Your task to perform on an android device: Do I have any events today? Image 0: 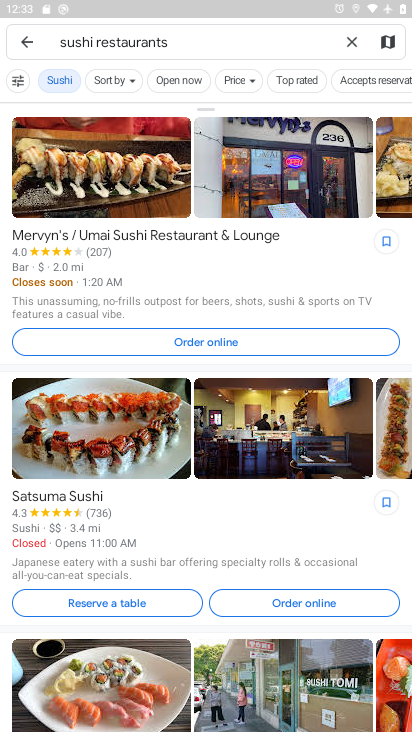
Step 0: task complete